Your task to perform on an android device: Search for a 36" x 48" whiteboard on Home Depot Image 0: 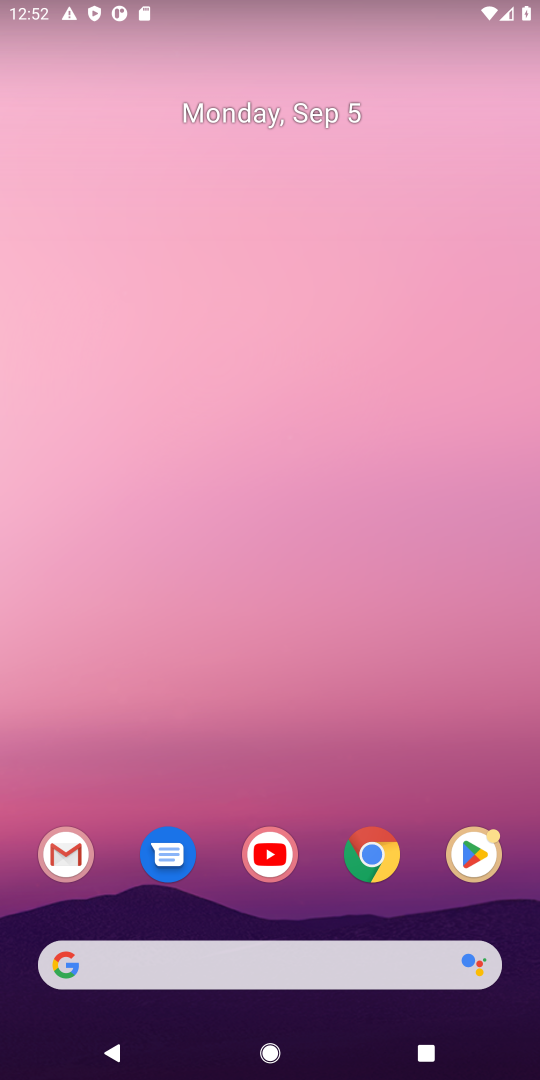
Step 0: press home button
Your task to perform on an android device: Search for a 36" x 48" whiteboard on Home Depot Image 1: 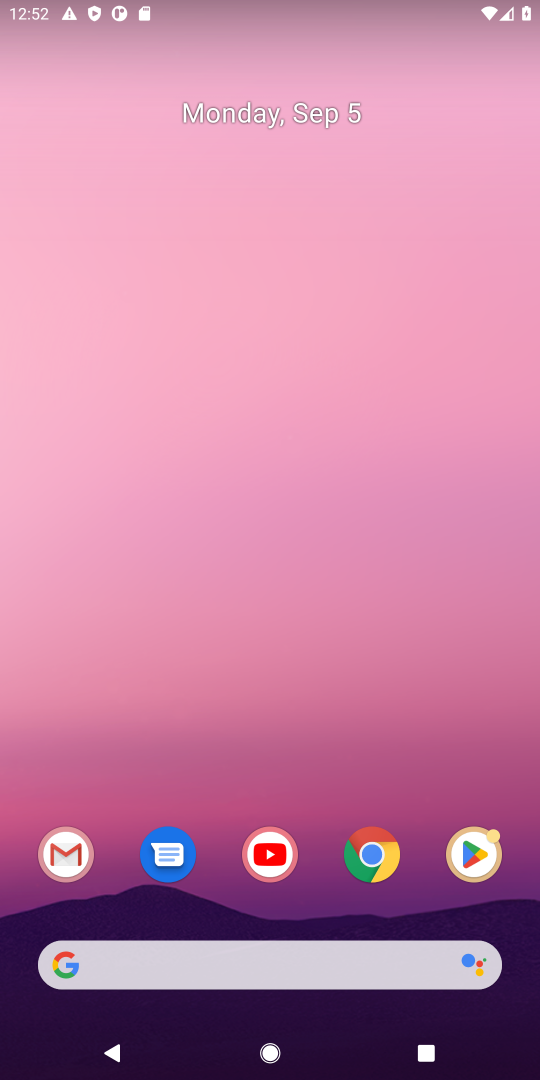
Step 1: click (306, 967)
Your task to perform on an android device: Search for a 36" x 48" whiteboard on Home Depot Image 2: 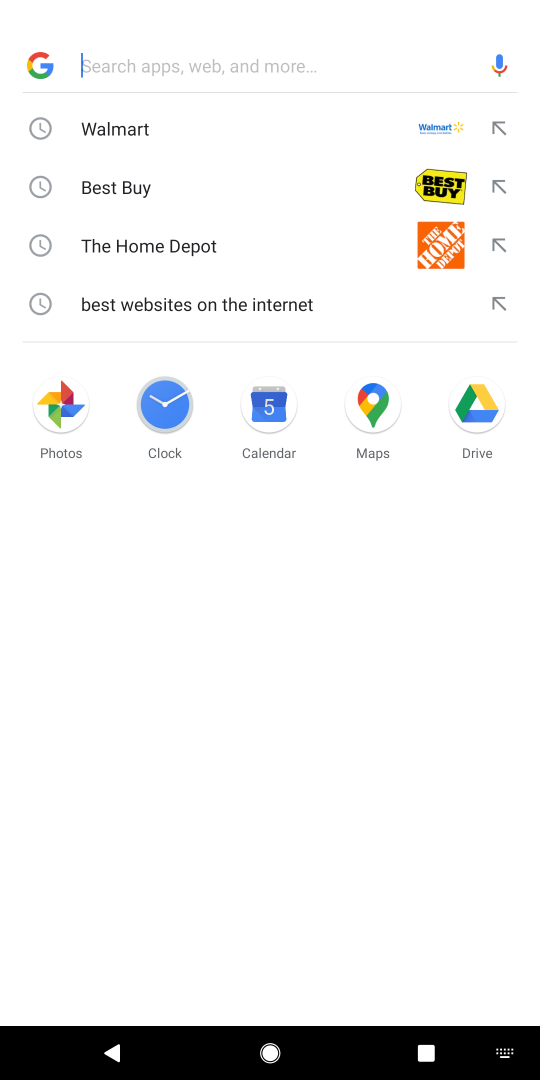
Step 2: press enter
Your task to perform on an android device: Search for a 36" x 48" whiteboard on Home Depot Image 3: 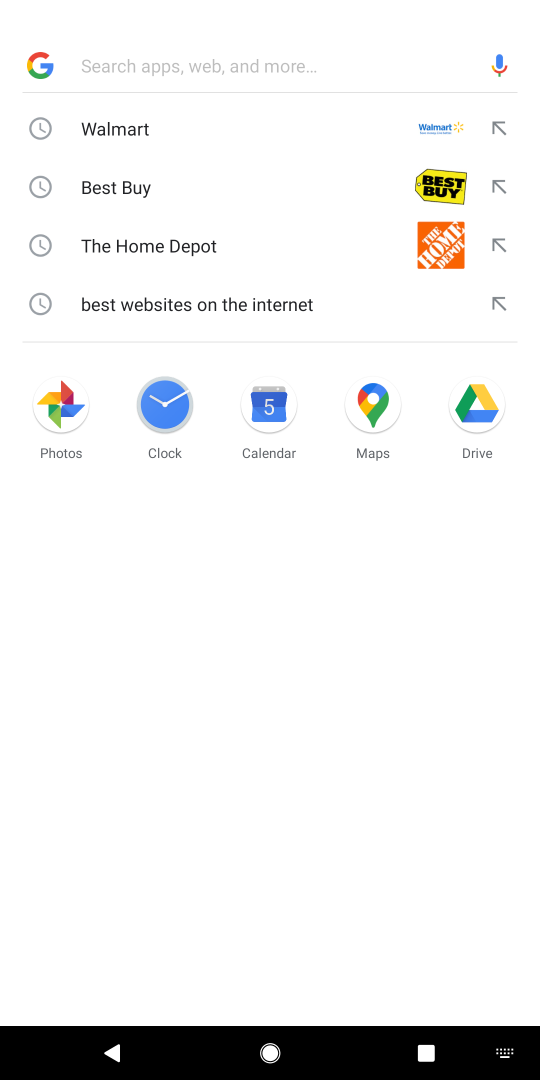
Step 3: type "home depot"
Your task to perform on an android device: Search for a 36" x 48" whiteboard on Home Depot Image 4: 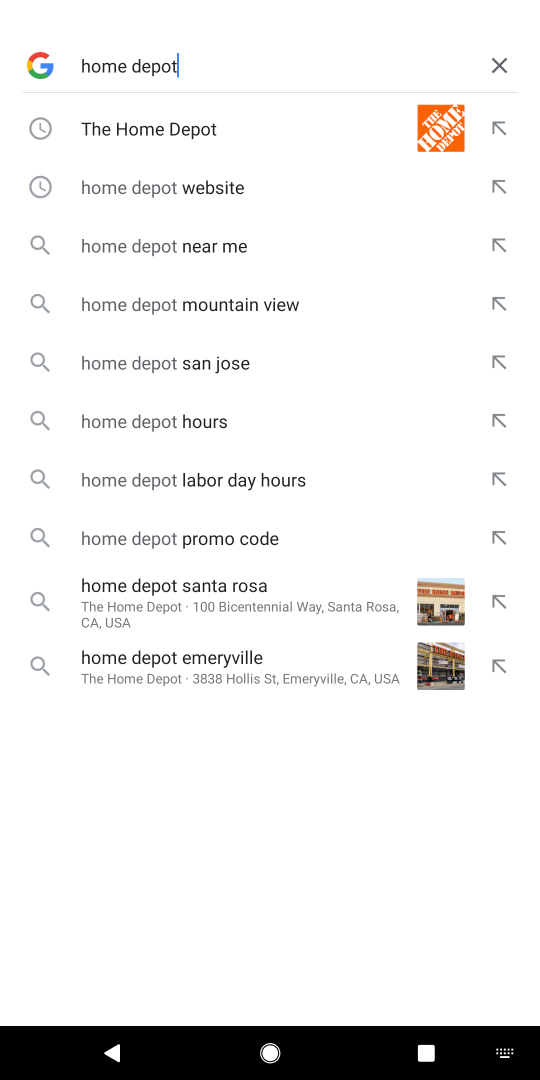
Step 4: click (192, 124)
Your task to perform on an android device: Search for a 36" x 48" whiteboard on Home Depot Image 5: 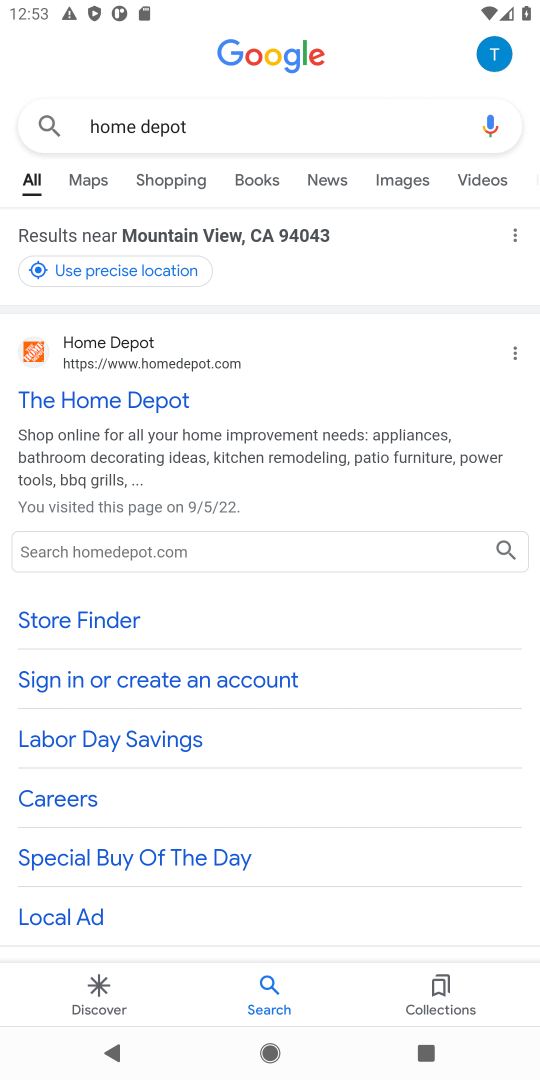
Step 5: click (128, 399)
Your task to perform on an android device: Search for a 36" x 48" whiteboard on Home Depot Image 6: 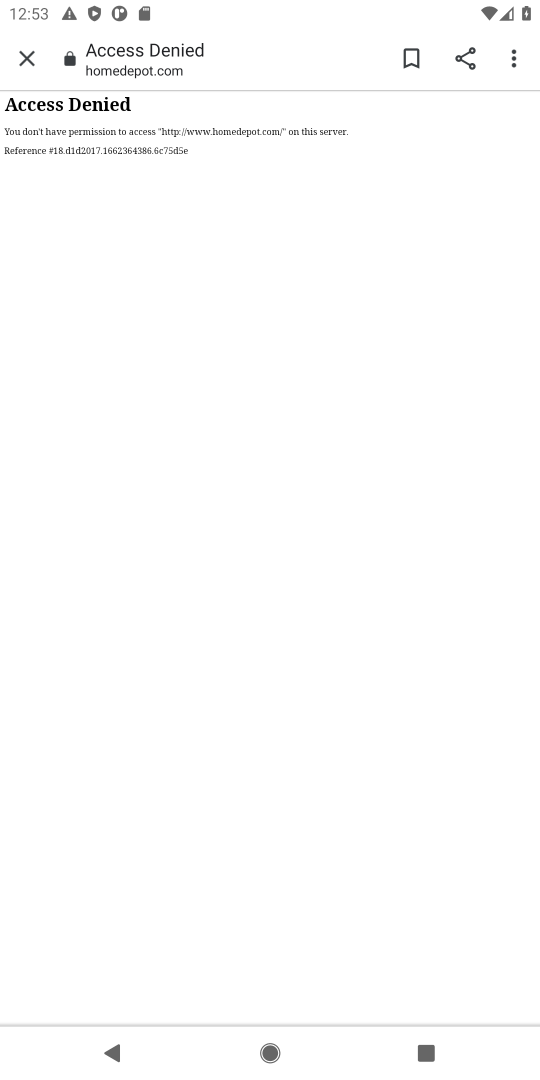
Step 6: task complete